Your task to perform on an android device: Go to Maps Image 0: 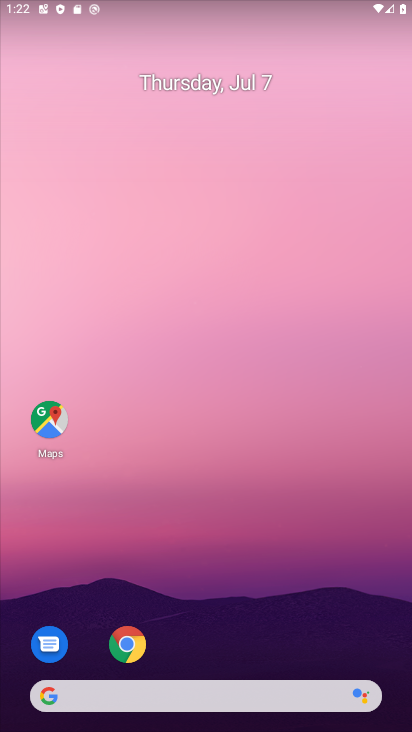
Step 0: drag from (262, 620) to (260, 127)
Your task to perform on an android device: Go to Maps Image 1: 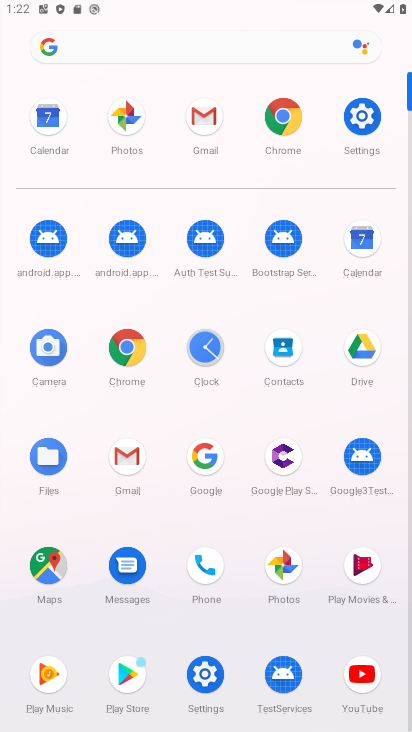
Step 1: click (51, 570)
Your task to perform on an android device: Go to Maps Image 2: 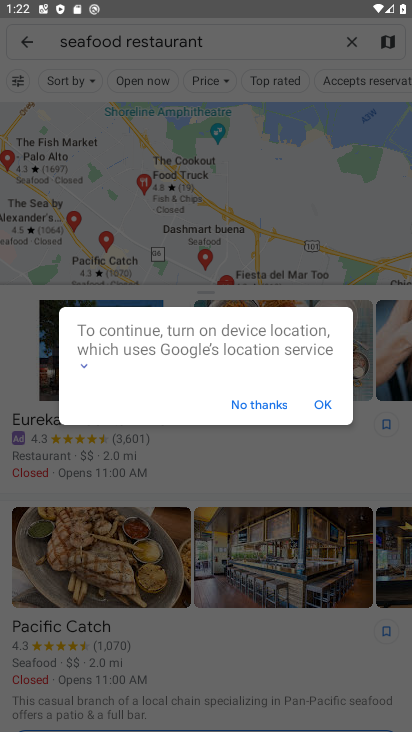
Step 2: click (315, 404)
Your task to perform on an android device: Go to Maps Image 3: 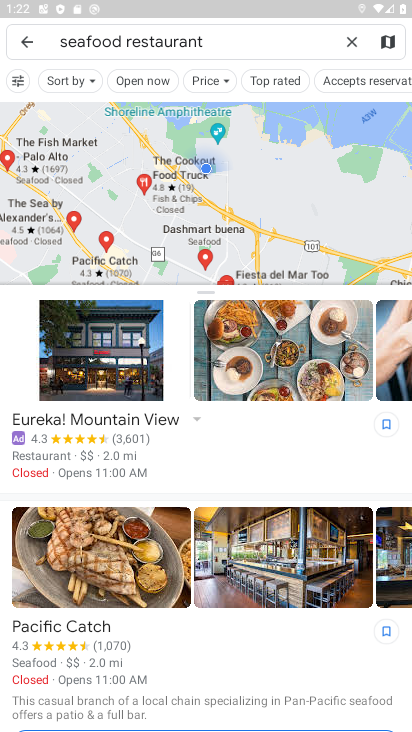
Step 3: click (353, 40)
Your task to perform on an android device: Go to Maps Image 4: 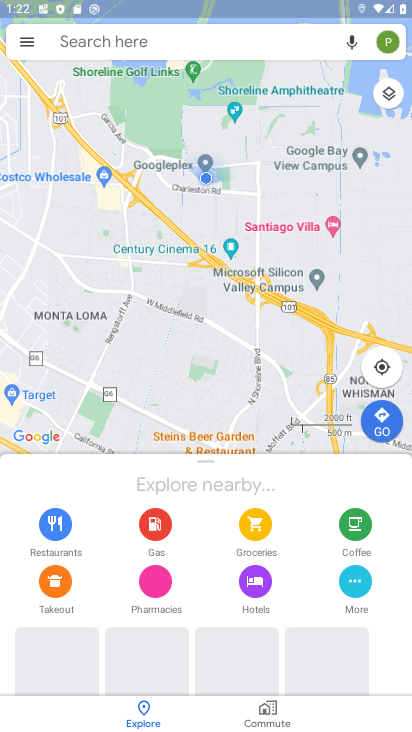
Step 4: click (243, 40)
Your task to perform on an android device: Go to Maps Image 5: 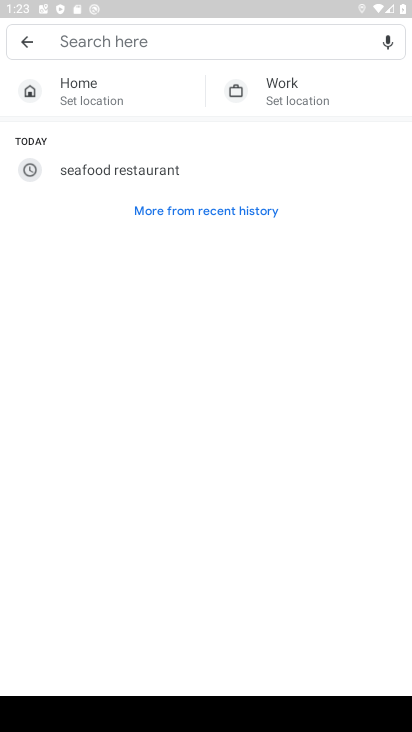
Step 5: task complete